Your task to perform on an android device: Open Maps and search for coffee Image 0: 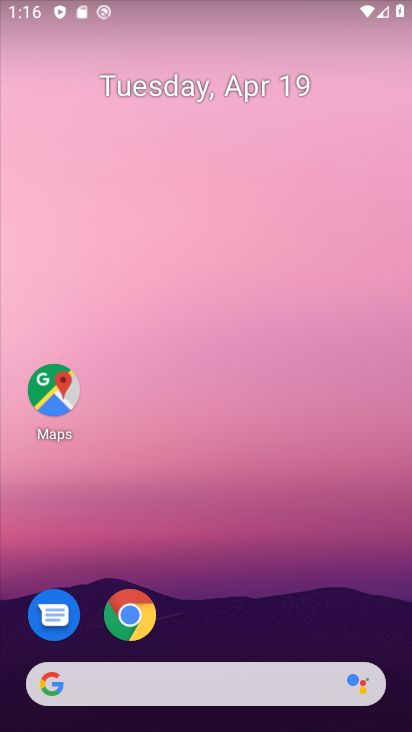
Step 0: click (226, 593)
Your task to perform on an android device: Open Maps and search for coffee Image 1: 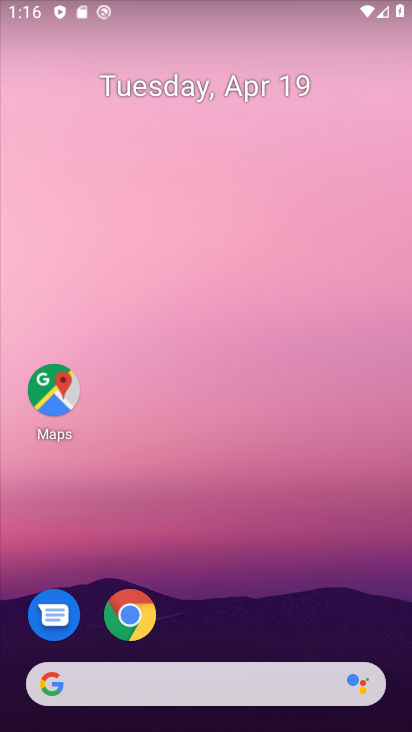
Step 1: click (60, 399)
Your task to perform on an android device: Open Maps and search for coffee Image 2: 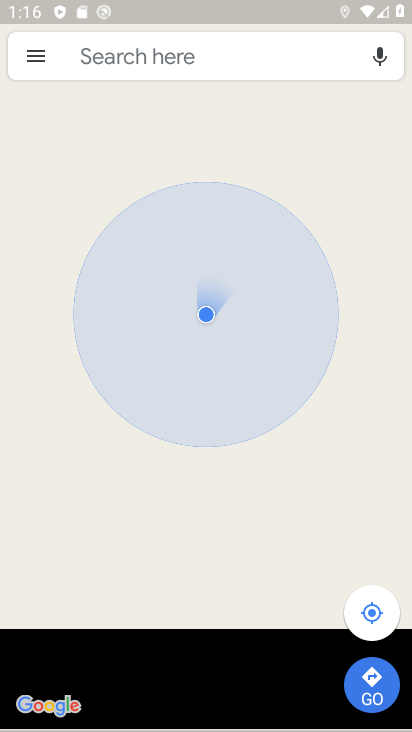
Step 2: click (181, 60)
Your task to perform on an android device: Open Maps and search for coffee Image 3: 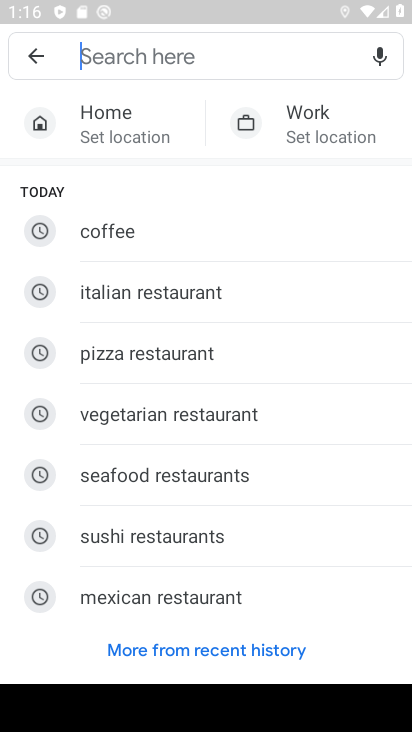
Step 3: click (114, 231)
Your task to perform on an android device: Open Maps and search for coffee Image 4: 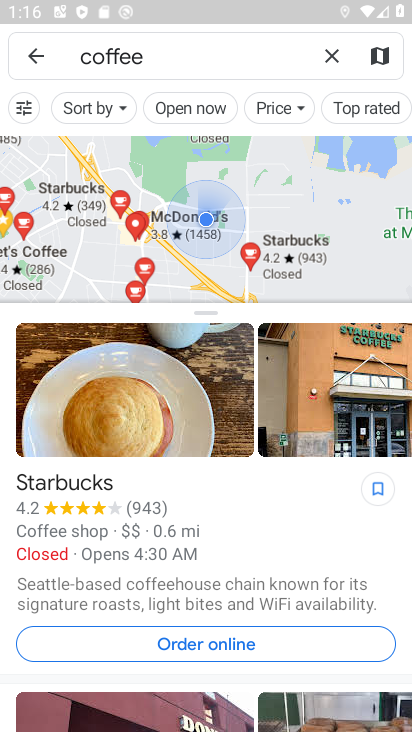
Step 4: task complete